Your task to perform on an android device: Search for Mexican restaurants on Maps Image 0: 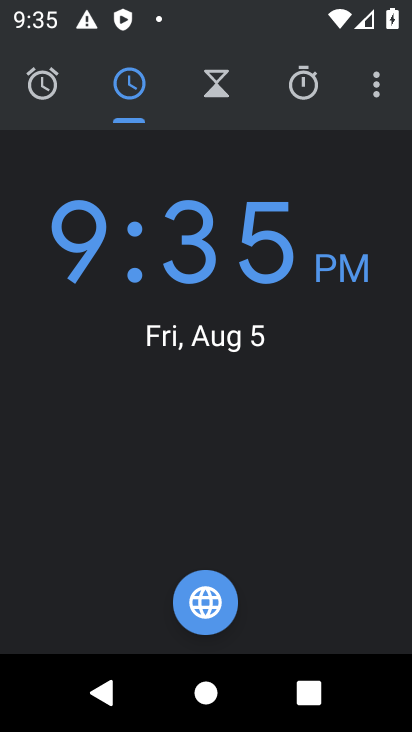
Step 0: press home button
Your task to perform on an android device: Search for Mexican restaurants on Maps Image 1: 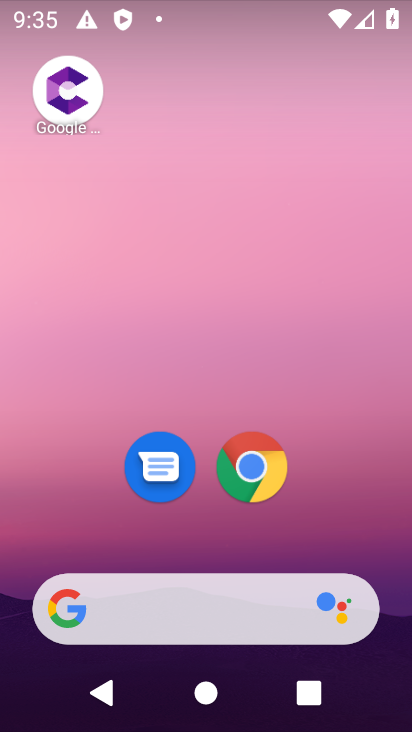
Step 1: drag from (183, 555) to (215, 16)
Your task to perform on an android device: Search for Mexican restaurants on Maps Image 2: 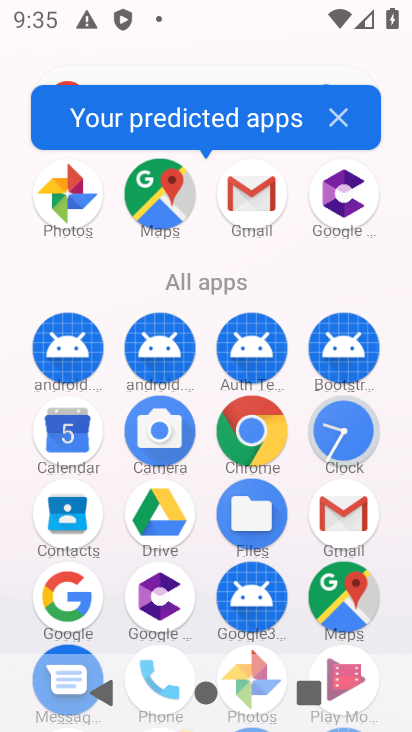
Step 2: click (329, 592)
Your task to perform on an android device: Search for Mexican restaurants on Maps Image 3: 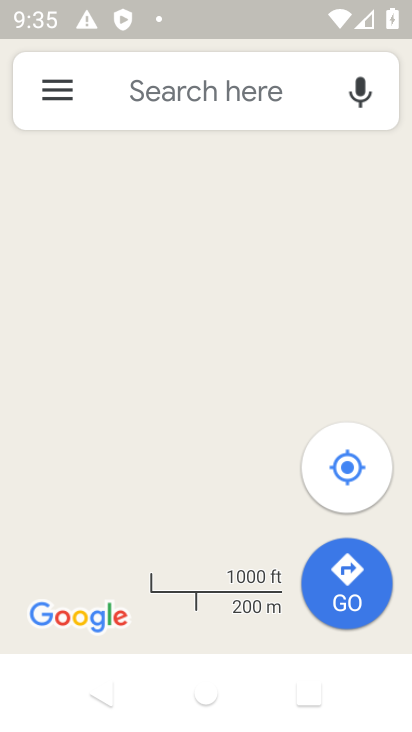
Step 3: click (234, 104)
Your task to perform on an android device: Search for Mexican restaurants on Maps Image 4: 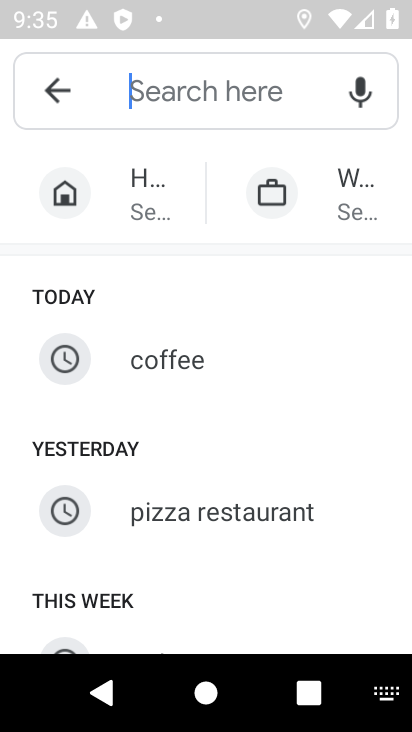
Step 4: drag from (175, 588) to (160, 124)
Your task to perform on an android device: Search for Mexican restaurants on Maps Image 5: 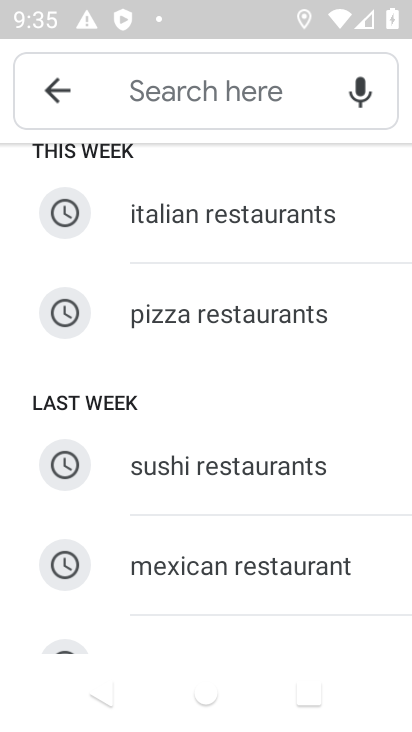
Step 5: click (216, 567)
Your task to perform on an android device: Search for Mexican restaurants on Maps Image 6: 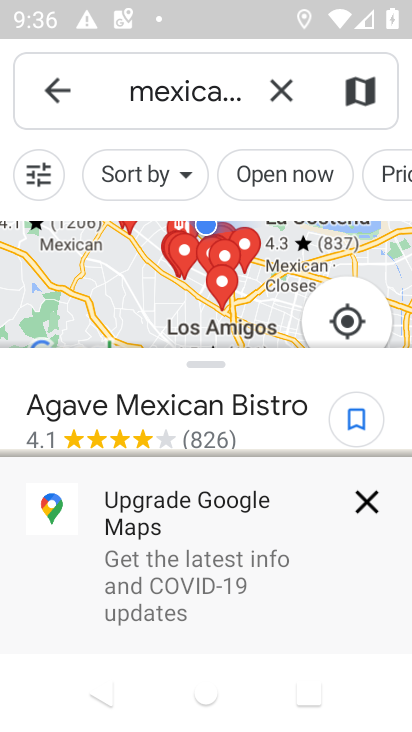
Step 6: task complete